Your task to perform on an android device: turn off picture-in-picture Image 0: 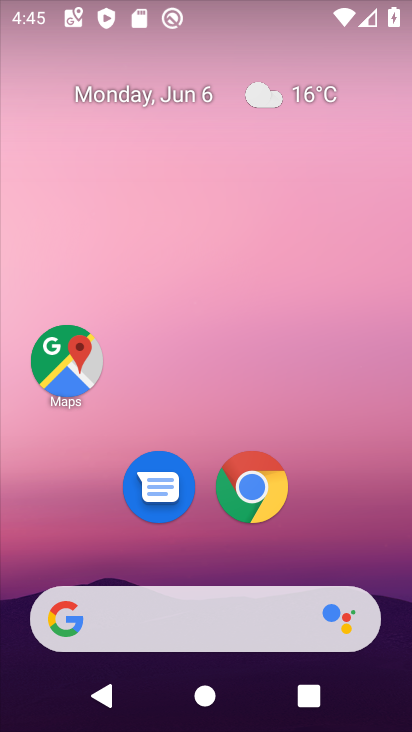
Step 0: click (265, 479)
Your task to perform on an android device: turn off picture-in-picture Image 1: 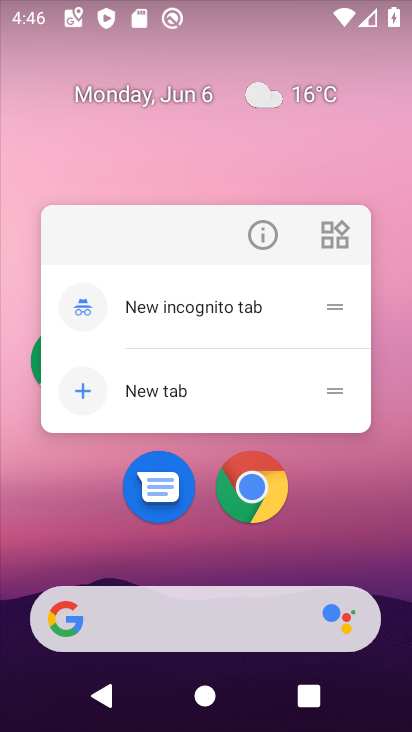
Step 1: click (266, 223)
Your task to perform on an android device: turn off picture-in-picture Image 2: 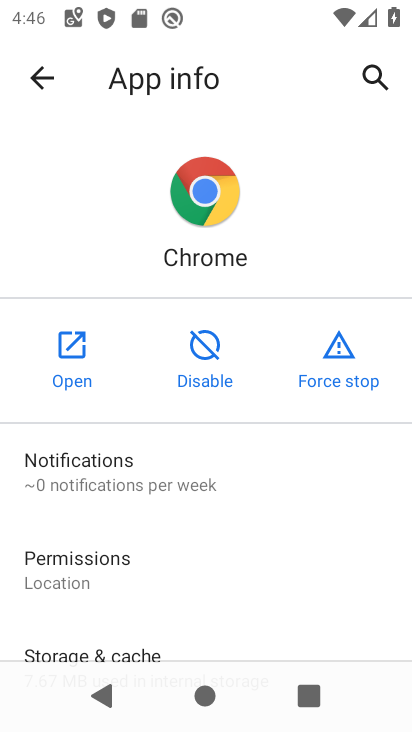
Step 2: drag from (186, 542) to (205, 43)
Your task to perform on an android device: turn off picture-in-picture Image 3: 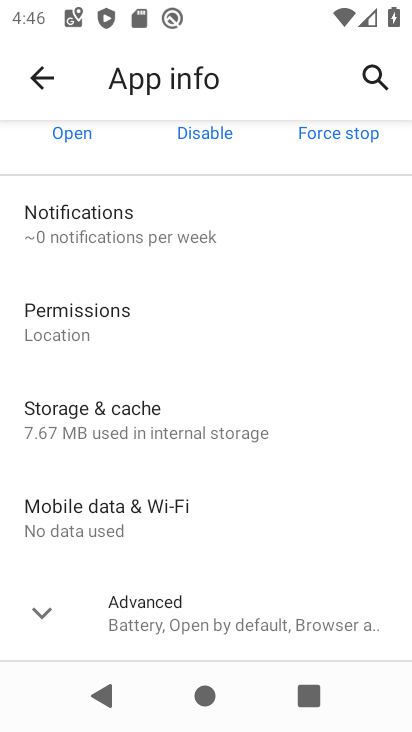
Step 3: click (37, 603)
Your task to perform on an android device: turn off picture-in-picture Image 4: 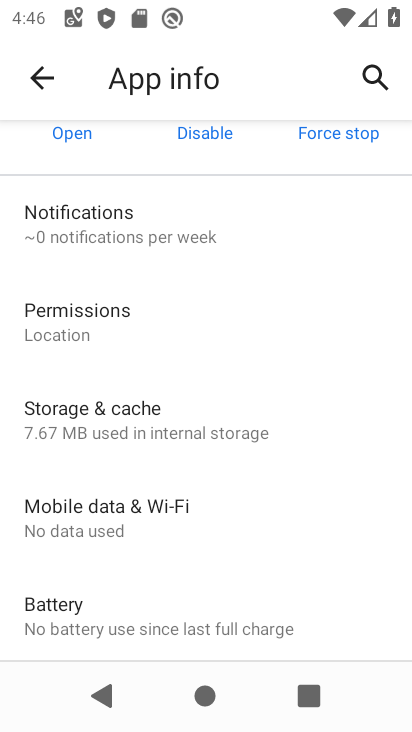
Step 4: drag from (160, 548) to (169, 90)
Your task to perform on an android device: turn off picture-in-picture Image 5: 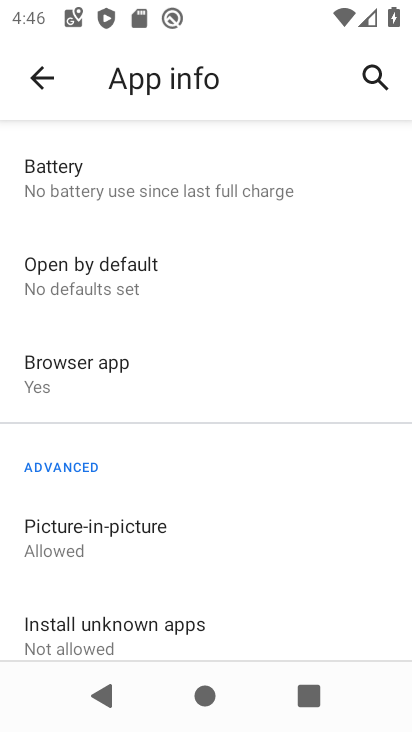
Step 5: click (110, 531)
Your task to perform on an android device: turn off picture-in-picture Image 6: 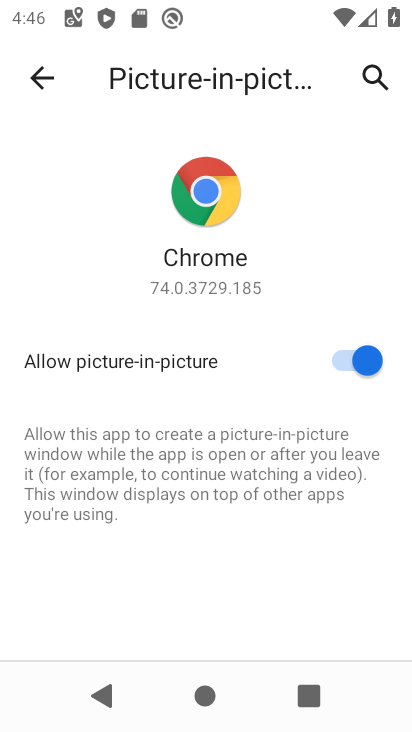
Step 6: click (354, 359)
Your task to perform on an android device: turn off picture-in-picture Image 7: 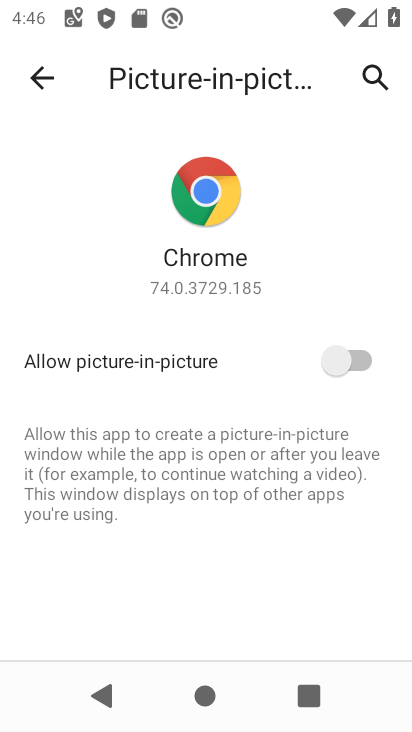
Step 7: task complete